Your task to perform on an android device: remove spam from my inbox in the gmail app Image 0: 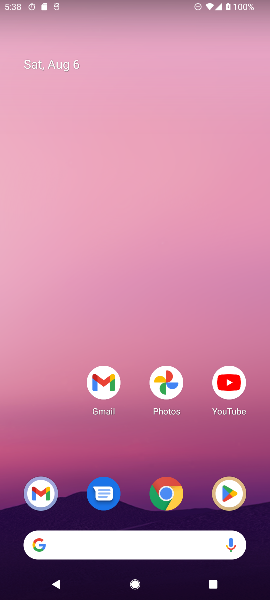
Step 0: drag from (142, 541) to (82, 274)
Your task to perform on an android device: remove spam from my inbox in the gmail app Image 1: 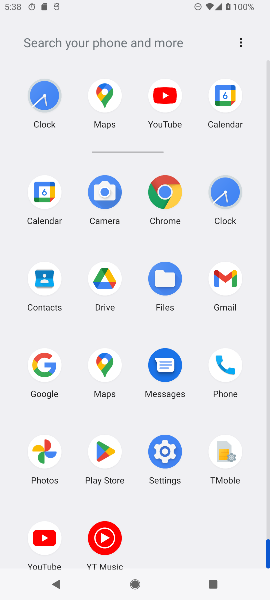
Step 1: click (223, 278)
Your task to perform on an android device: remove spam from my inbox in the gmail app Image 2: 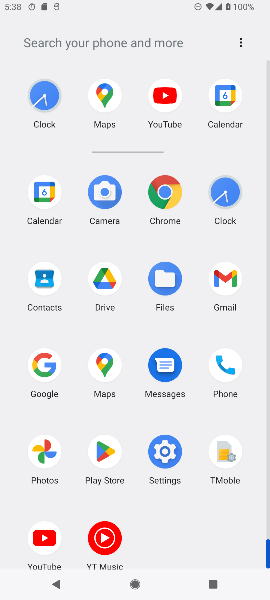
Step 2: click (223, 278)
Your task to perform on an android device: remove spam from my inbox in the gmail app Image 3: 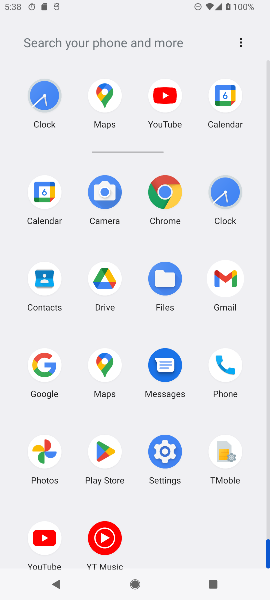
Step 3: click (223, 278)
Your task to perform on an android device: remove spam from my inbox in the gmail app Image 4: 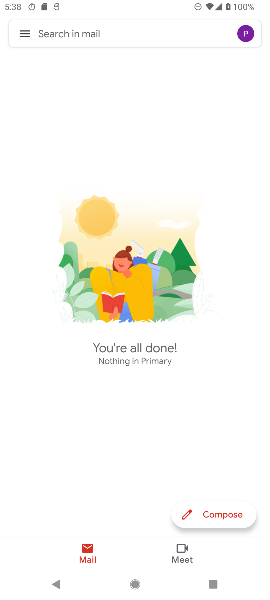
Step 4: click (20, 35)
Your task to perform on an android device: remove spam from my inbox in the gmail app Image 5: 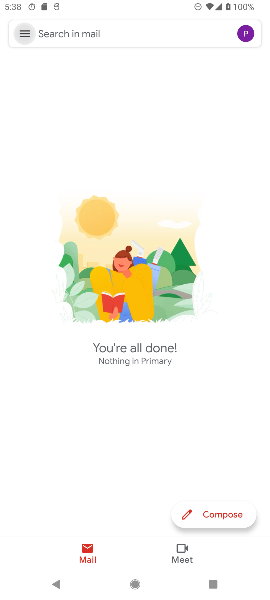
Step 5: click (22, 34)
Your task to perform on an android device: remove spam from my inbox in the gmail app Image 6: 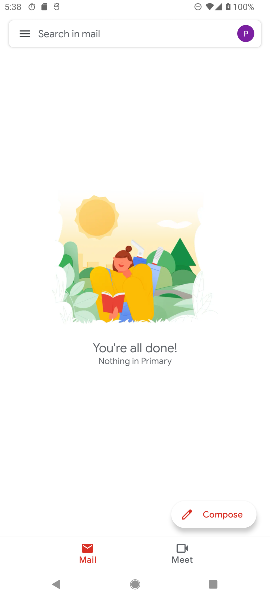
Step 6: click (24, 33)
Your task to perform on an android device: remove spam from my inbox in the gmail app Image 7: 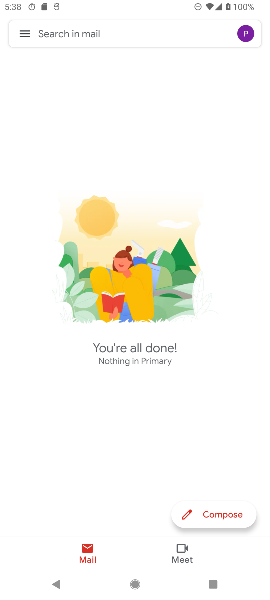
Step 7: click (24, 33)
Your task to perform on an android device: remove spam from my inbox in the gmail app Image 8: 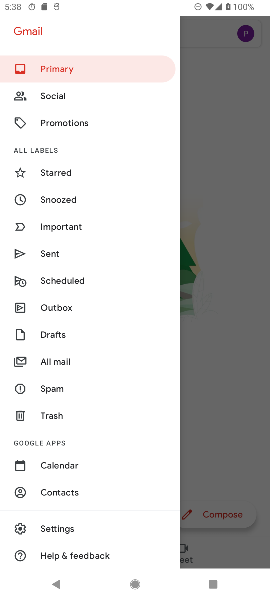
Step 8: click (24, 33)
Your task to perform on an android device: remove spam from my inbox in the gmail app Image 9: 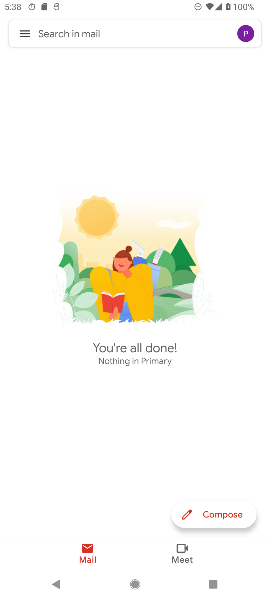
Step 9: drag from (102, 112) to (210, 178)
Your task to perform on an android device: remove spam from my inbox in the gmail app Image 10: 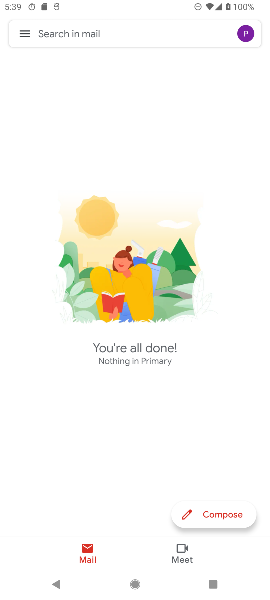
Step 10: click (25, 31)
Your task to perform on an android device: remove spam from my inbox in the gmail app Image 11: 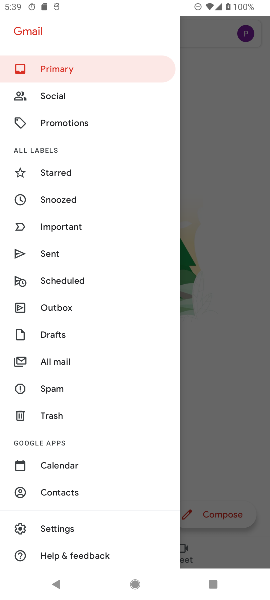
Step 11: click (50, 388)
Your task to perform on an android device: remove spam from my inbox in the gmail app Image 12: 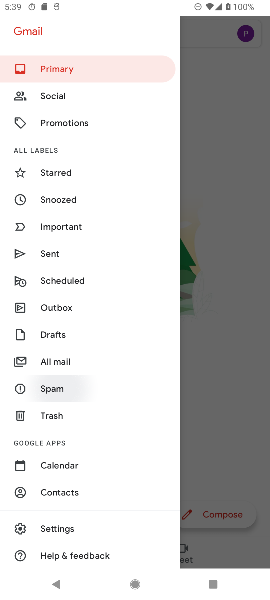
Step 12: click (50, 388)
Your task to perform on an android device: remove spam from my inbox in the gmail app Image 13: 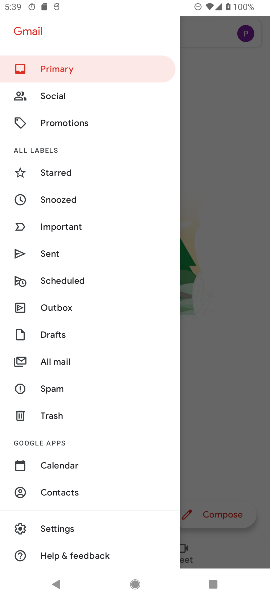
Step 13: click (50, 388)
Your task to perform on an android device: remove spam from my inbox in the gmail app Image 14: 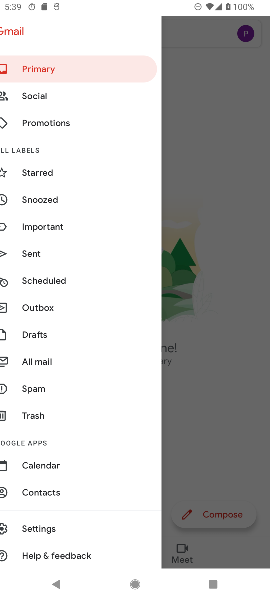
Step 14: click (50, 388)
Your task to perform on an android device: remove spam from my inbox in the gmail app Image 15: 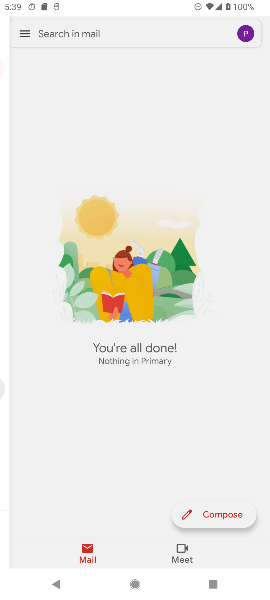
Step 15: click (50, 388)
Your task to perform on an android device: remove spam from my inbox in the gmail app Image 16: 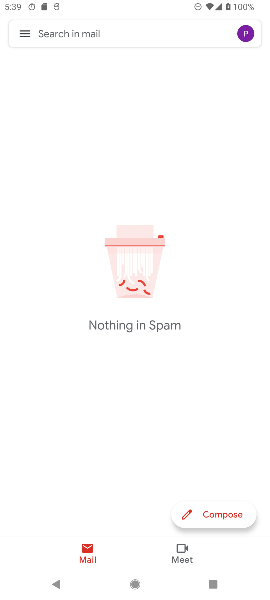
Step 16: task complete